Your task to perform on an android device: empty trash in the gmail app Image 0: 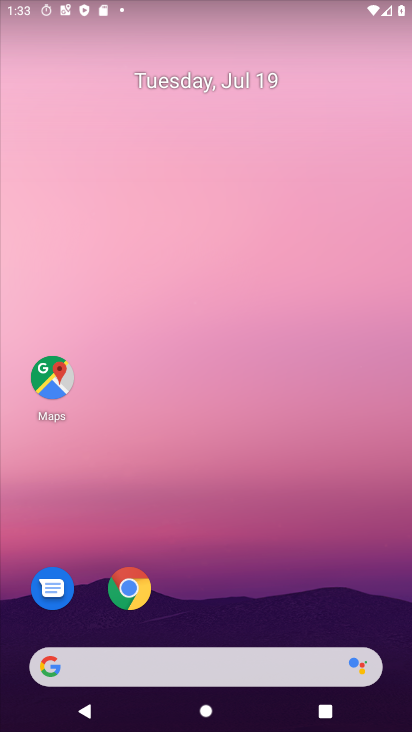
Step 0: drag from (9, 685) to (326, 61)
Your task to perform on an android device: empty trash in the gmail app Image 1: 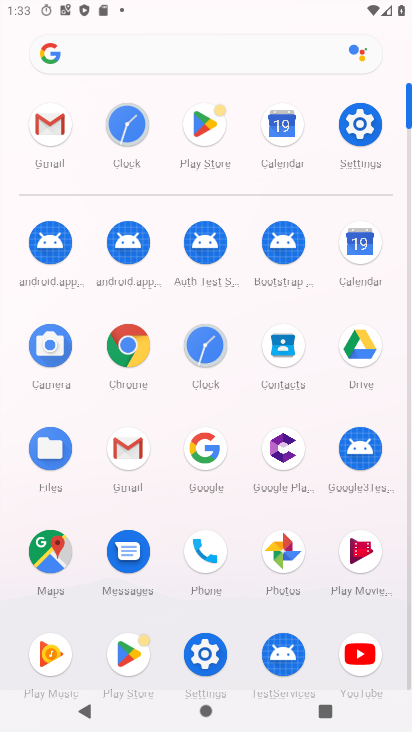
Step 1: click (143, 447)
Your task to perform on an android device: empty trash in the gmail app Image 2: 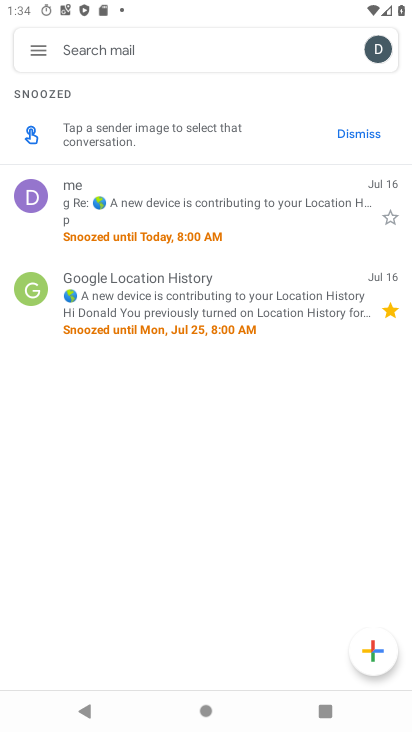
Step 2: click (40, 39)
Your task to perform on an android device: empty trash in the gmail app Image 3: 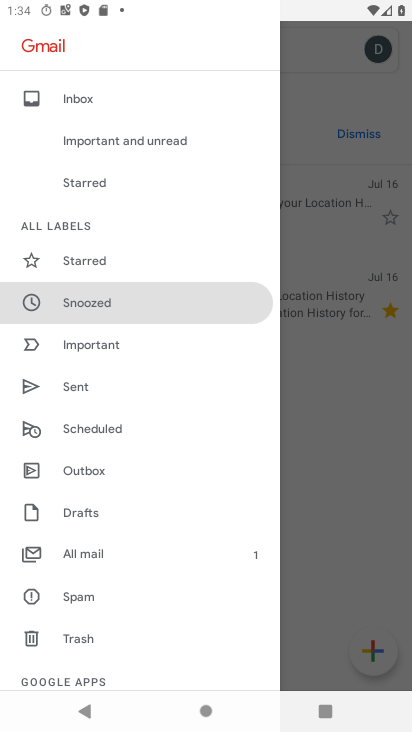
Step 3: click (73, 632)
Your task to perform on an android device: empty trash in the gmail app Image 4: 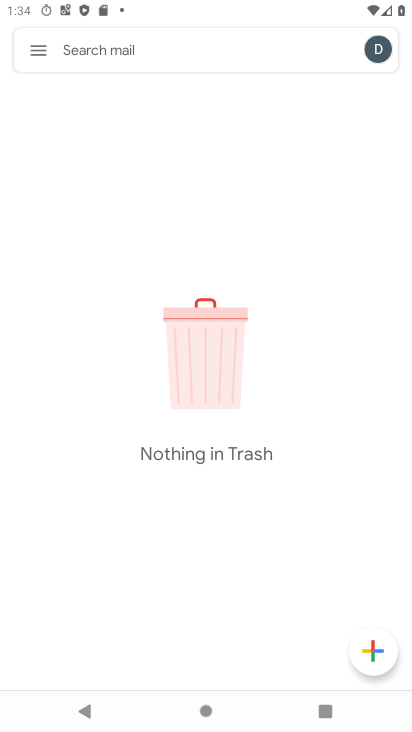
Step 4: task complete